Your task to perform on an android device: change text size in settings app Image 0: 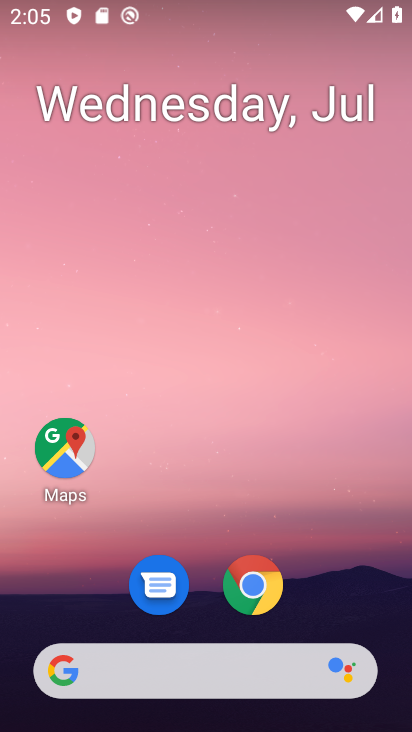
Step 0: drag from (194, 667) to (308, 130)
Your task to perform on an android device: change text size in settings app Image 1: 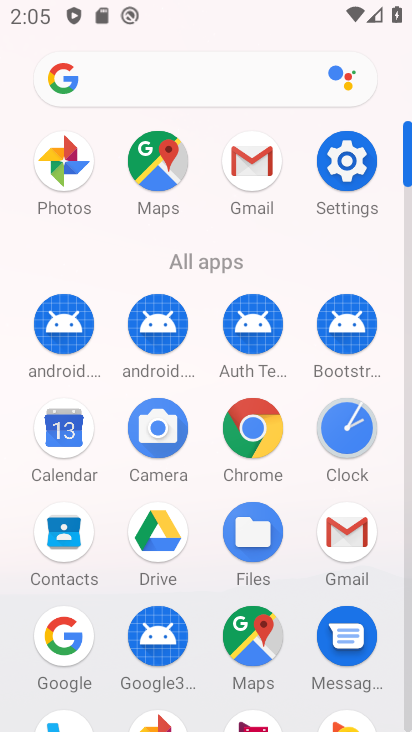
Step 1: click (344, 159)
Your task to perform on an android device: change text size in settings app Image 2: 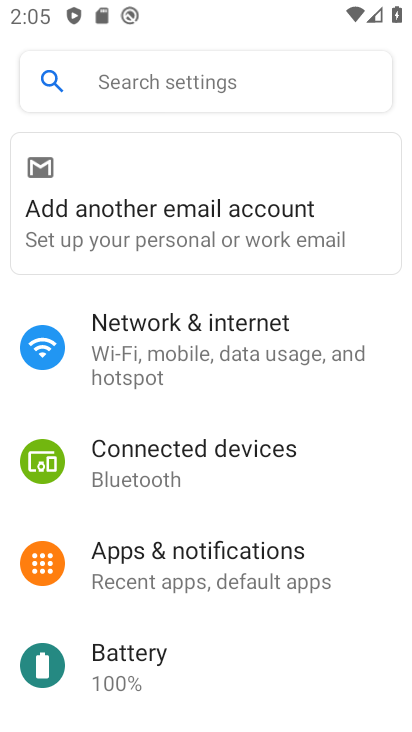
Step 2: drag from (318, 553) to (361, 81)
Your task to perform on an android device: change text size in settings app Image 3: 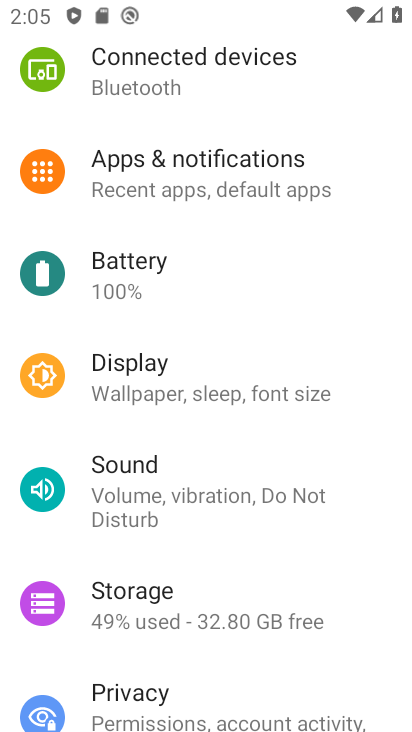
Step 3: click (191, 384)
Your task to perform on an android device: change text size in settings app Image 4: 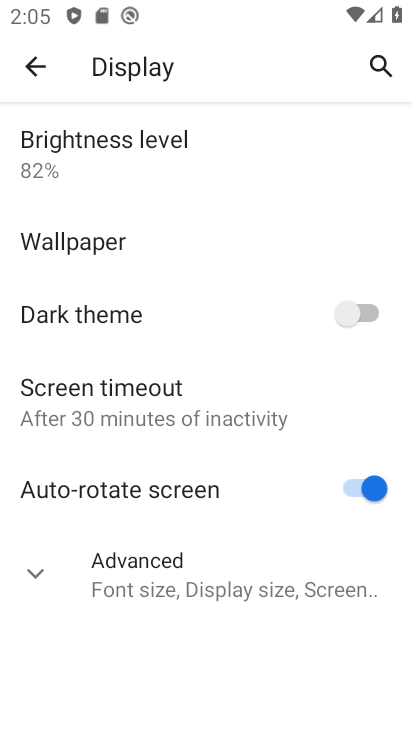
Step 4: click (156, 578)
Your task to perform on an android device: change text size in settings app Image 5: 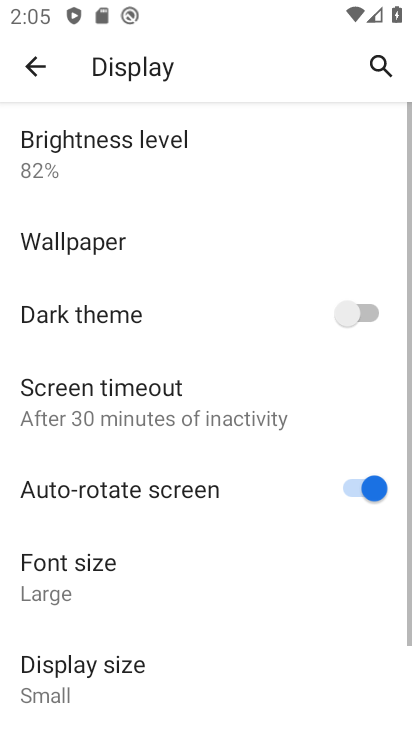
Step 5: drag from (199, 630) to (331, 85)
Your task to perform on an android device: change text size in settings app Image 6: 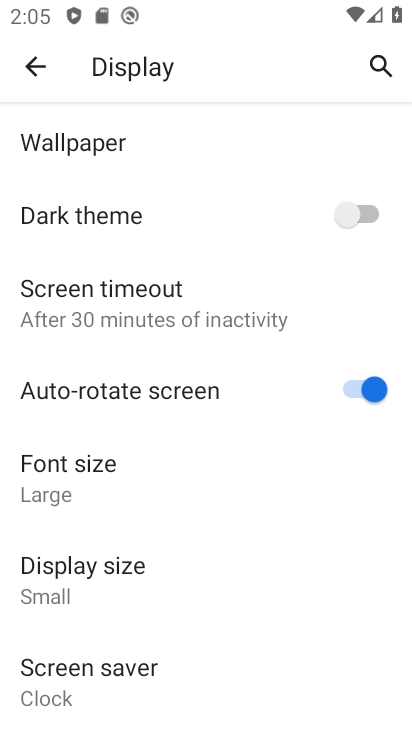
Step 6: click (102, 462)
Your task to perform on an android device: change text size in settings app Image 7: 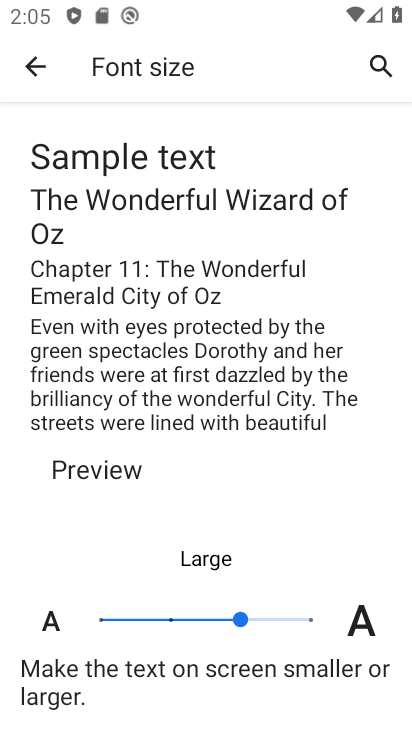
Step 7: click (102, 620)
Your task to perform on an android device: change text size in settings app Image 8: 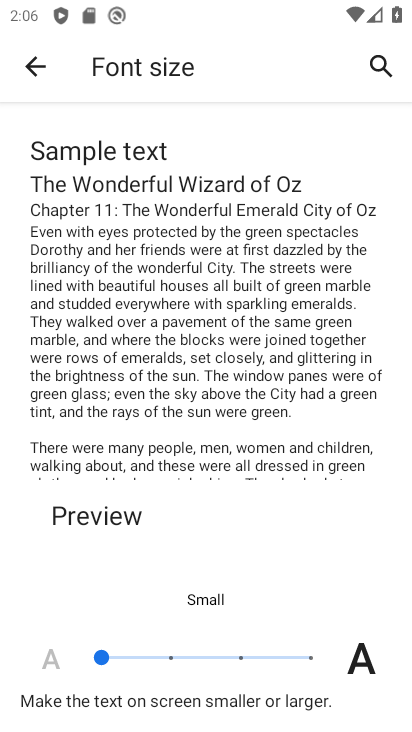
Step 8: task complete